Your task to perform on an android device: Open Youtube and go to the subscriptions tab Image 0: 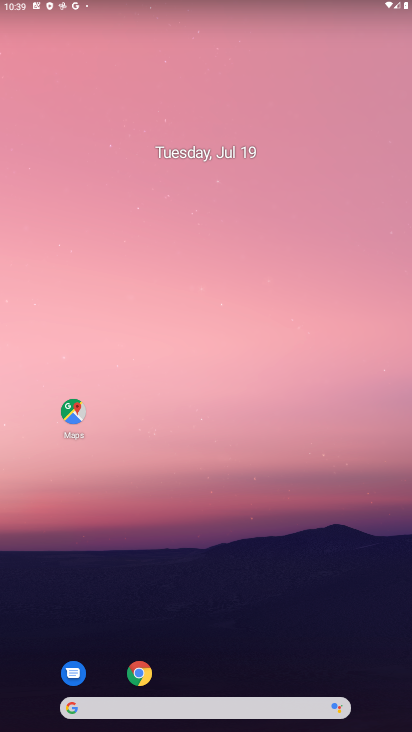
Step 0: drag from (247, 655) to (288, 9)
Your task to perform on an android device: Open Youtube and go to the subscriptions tab Image 1: 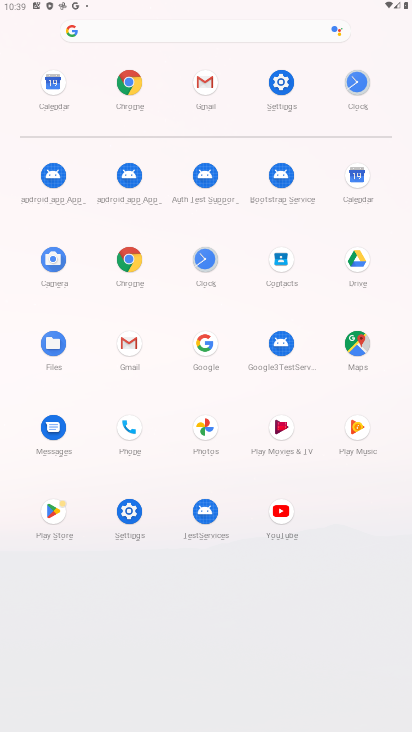
Step 1: click (279, 524)
Your task to perform on an android device: Open Youtube and go to the subscriptions tab Image 2: 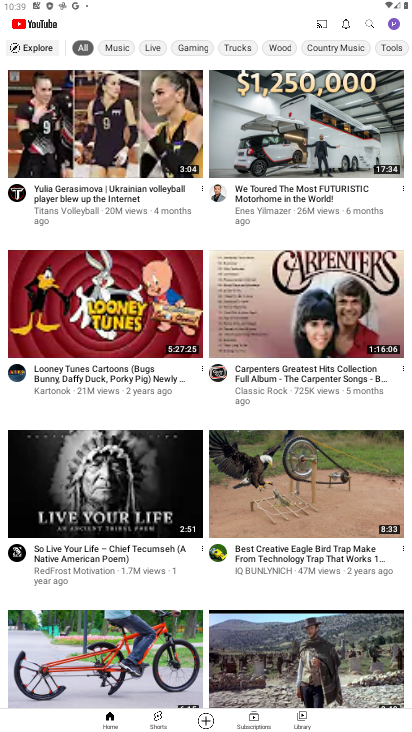
Step 2: click (237, 725)
Your task to perform on an android device: Open Youtube and go to the subscriptions tab Image 3: 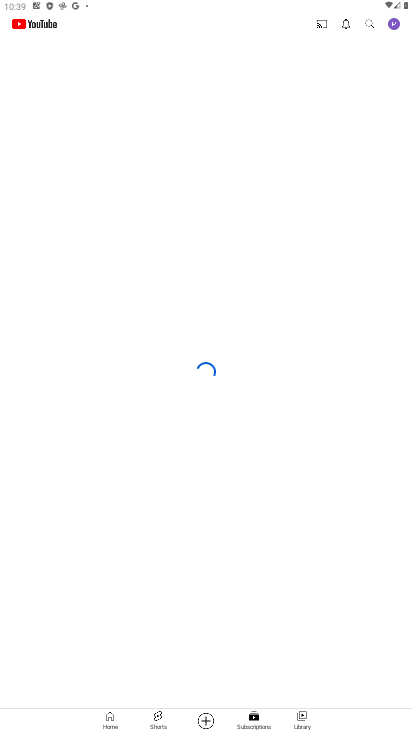
Step 3: task complete